Your task to perform on an android device: Empty the shopping cart on costco.com. Image 0: 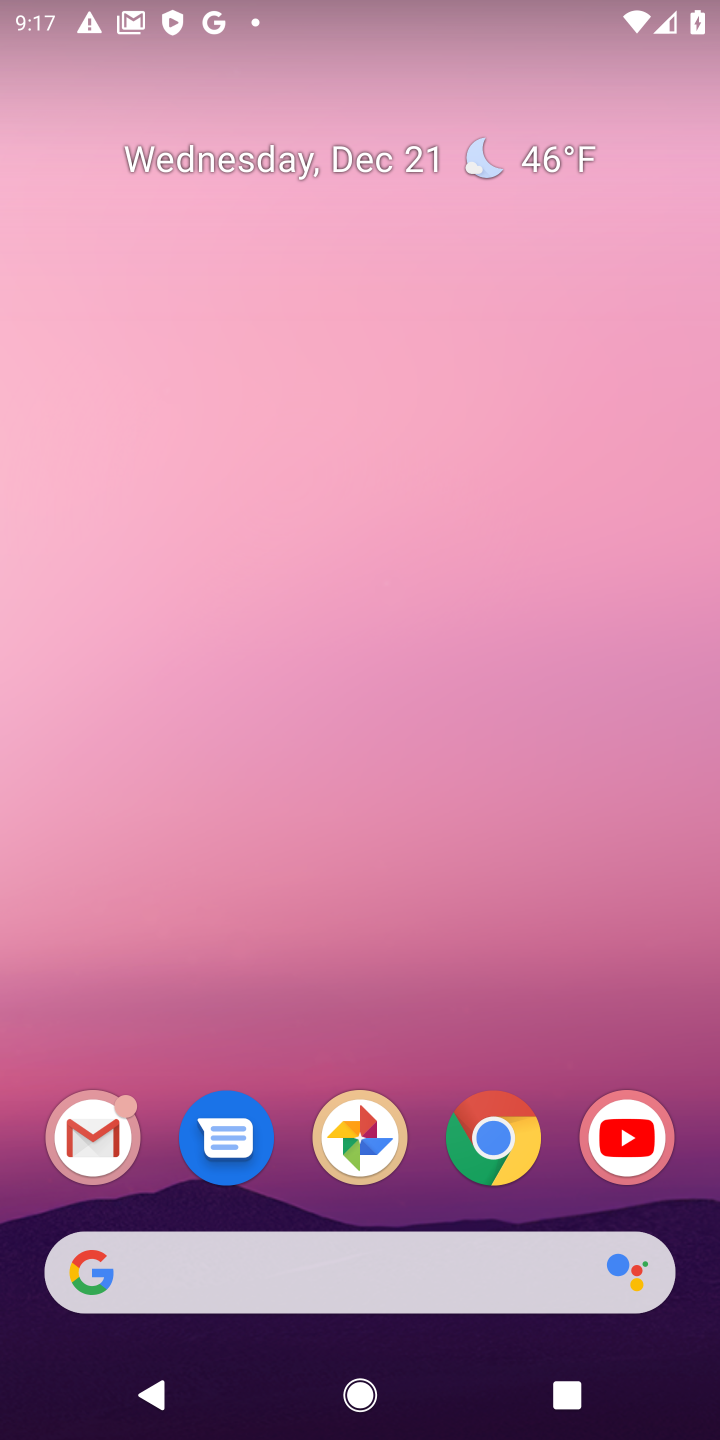
Step 0: click (494, 1164)
Your task to perform on an android device: Empty the shopping cart on costco.com. Image 1: 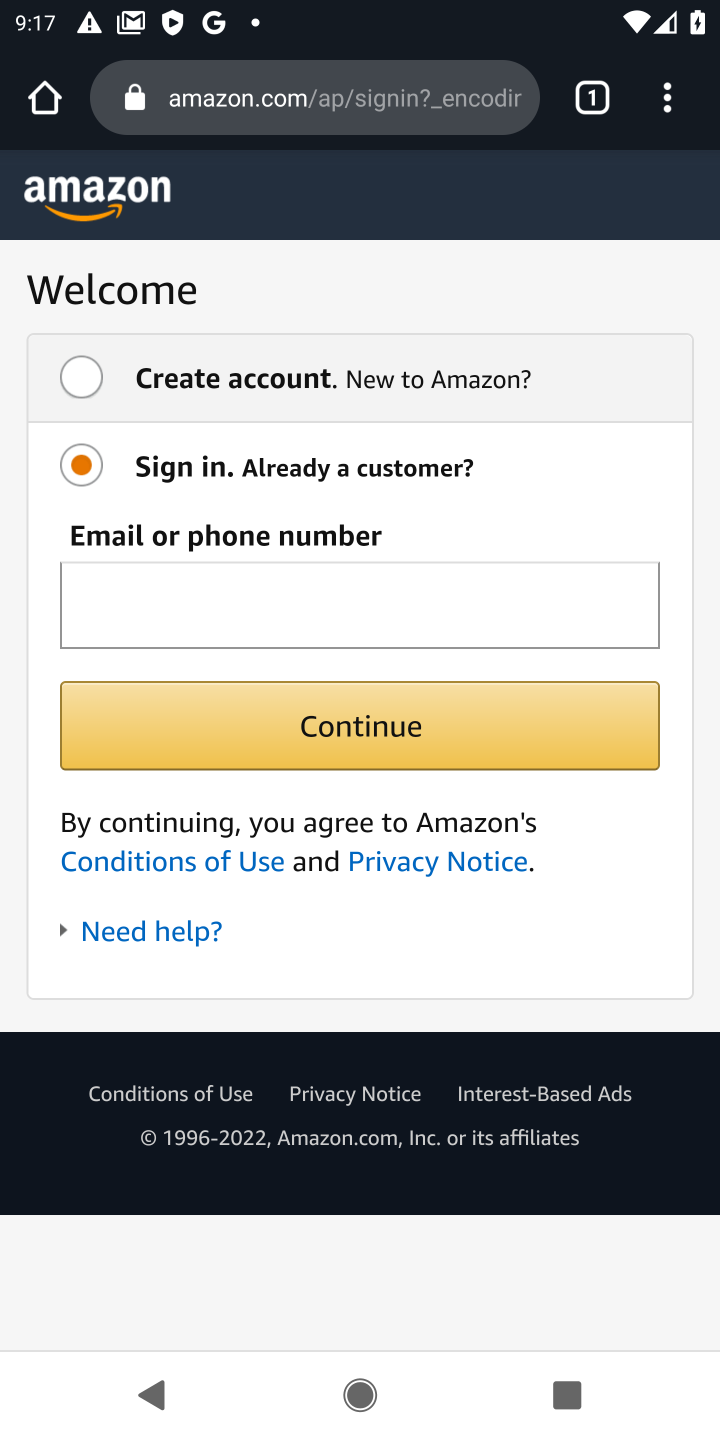
Step 1: click (260, 112)
Your task to perform on an android device: Empty the shopping cart on costco.com. Image 2: 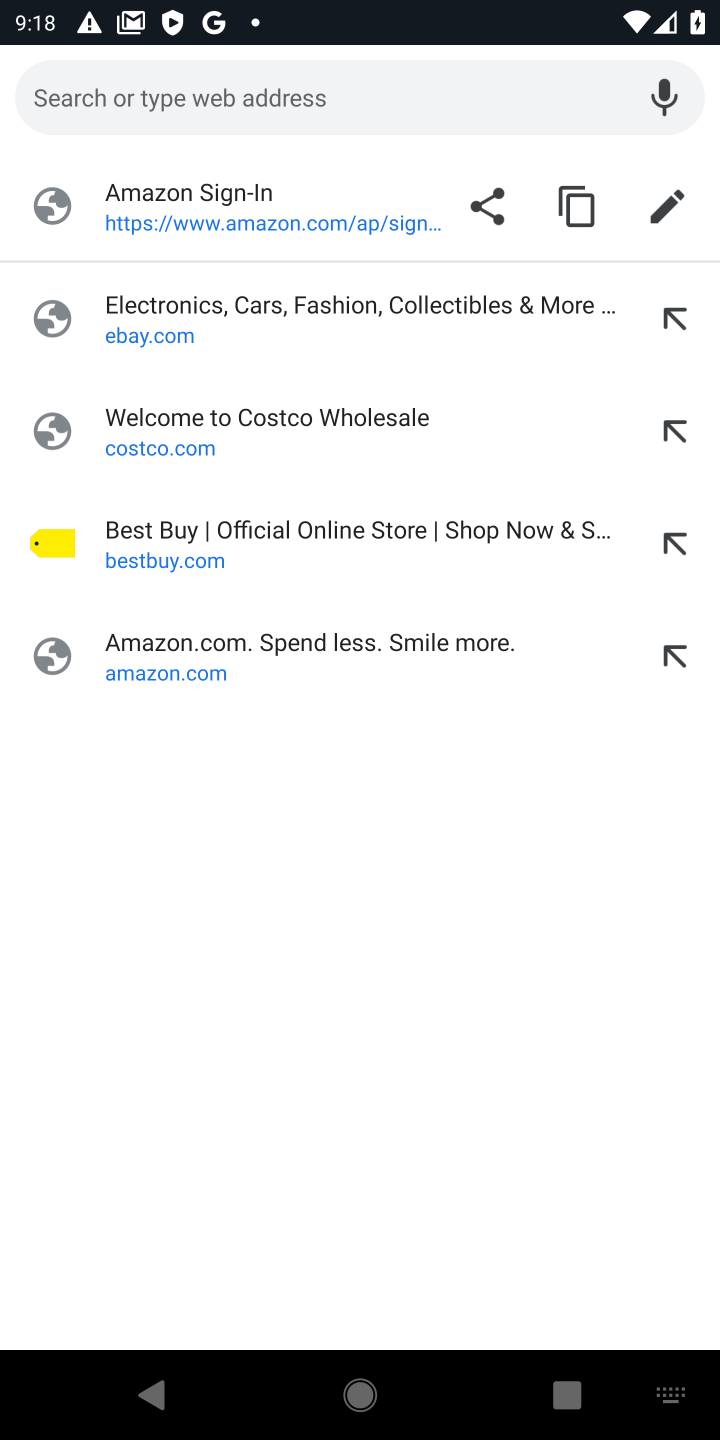
Step 2: click (177, 455)
Your task to perform on an android device: Empty the shopping cart on costco.com. Image 3: 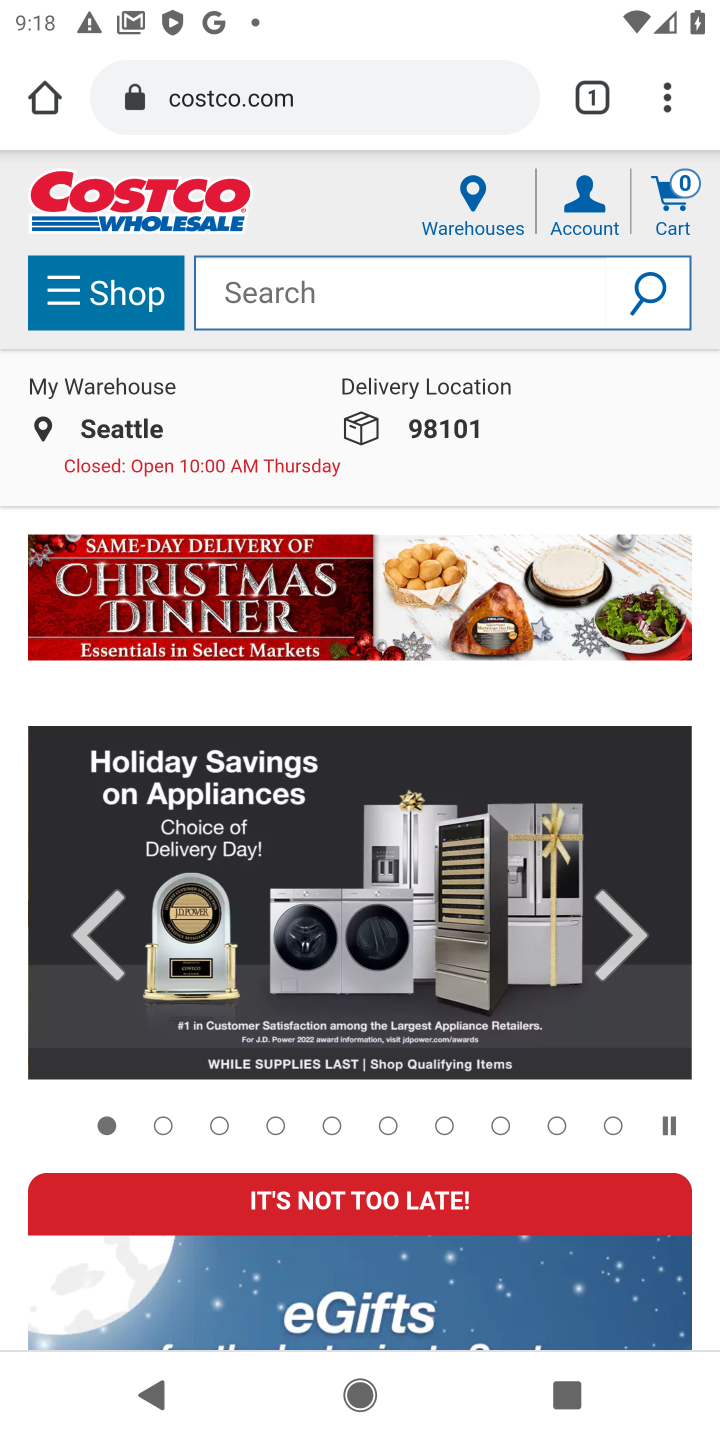
Step 3: click (660, 189)
Your task to perform on an android device: Empty the shopping cart on costco.com. Image 4: 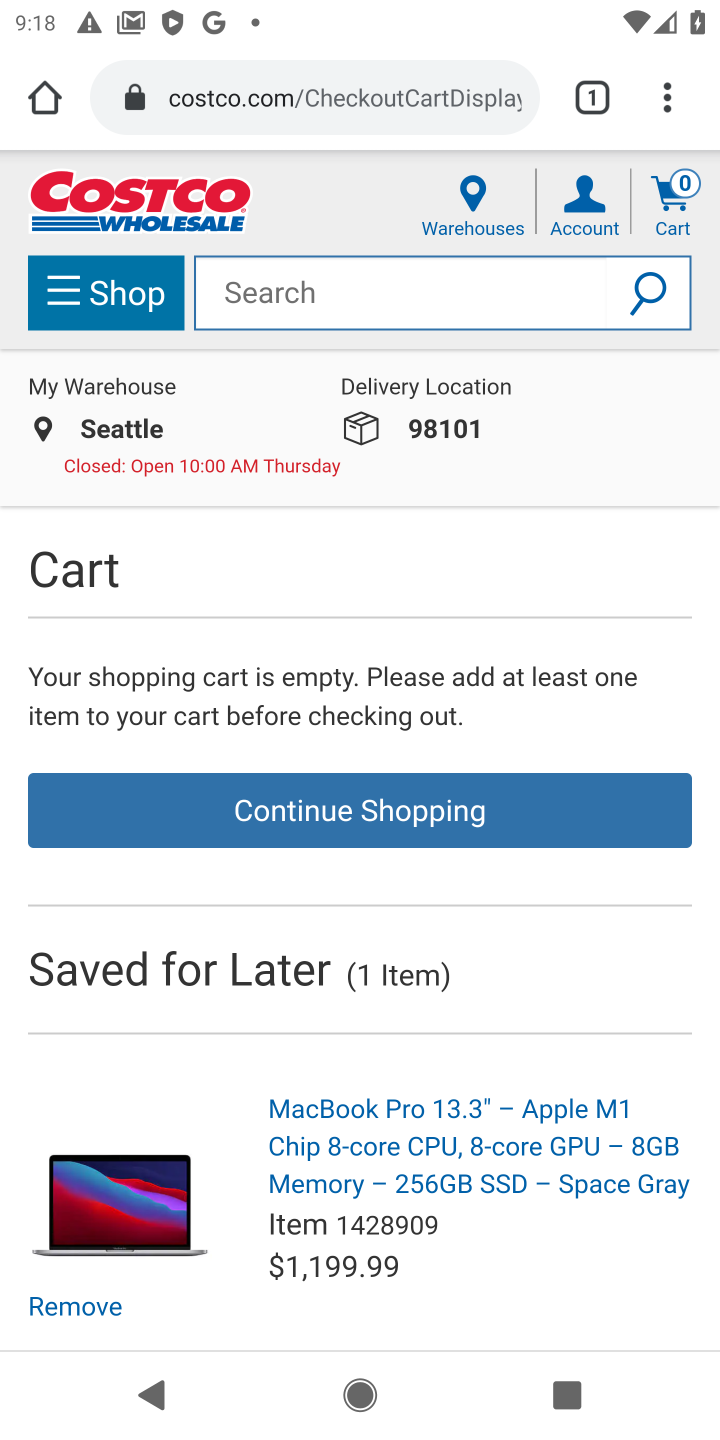
Step 4: task complete